Your task to perform on an android device: all mails in gmail Image 0: 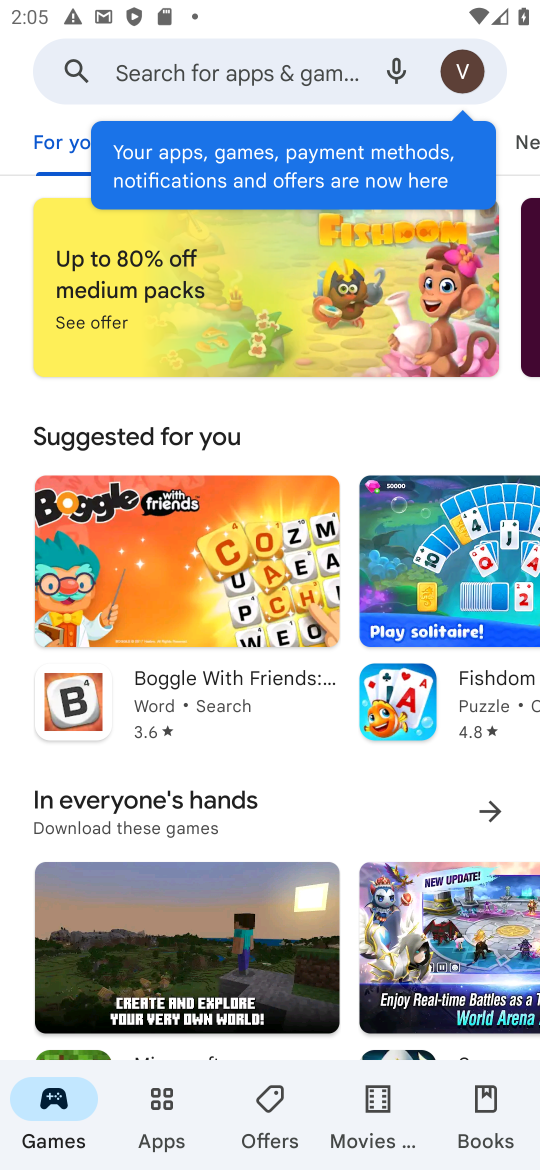
Step 0: press home button
Your task to perform on an android device: all mails in gmail Image 1: 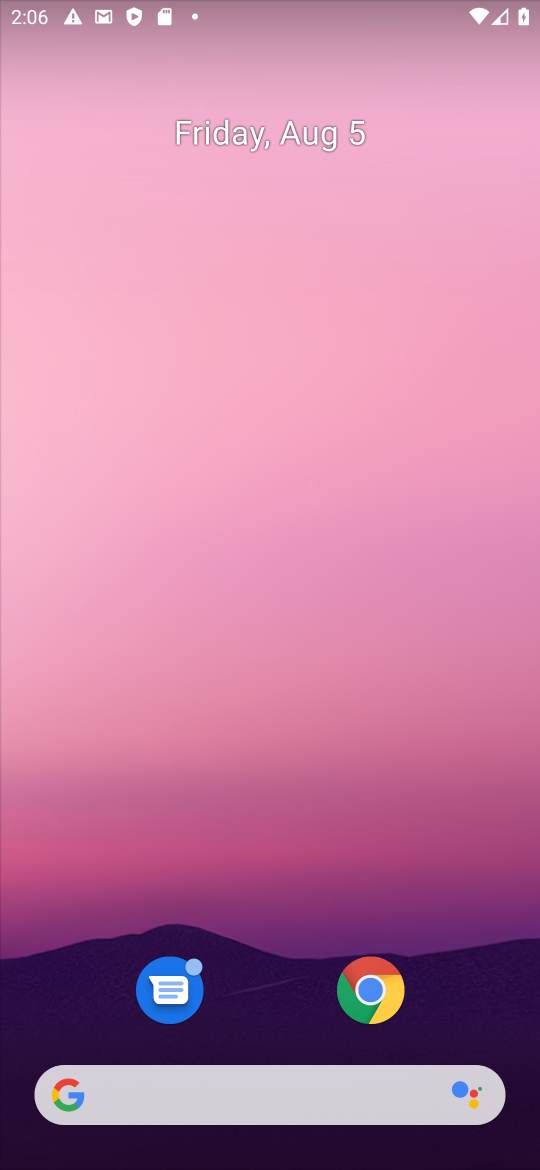
Step 1: drag from (279, 1094) to (180, 223)
Your task to perform on an android device: all mails in gmail Image 2: 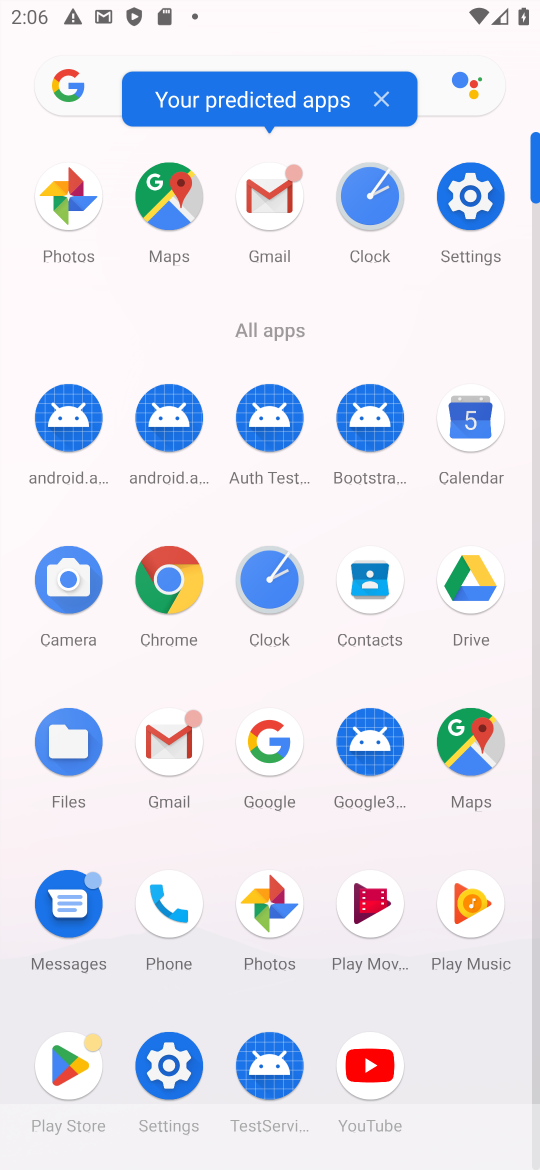
Step 2: click (168, 736)
Your task to perform on an android device: all mails in gmail Image 3: 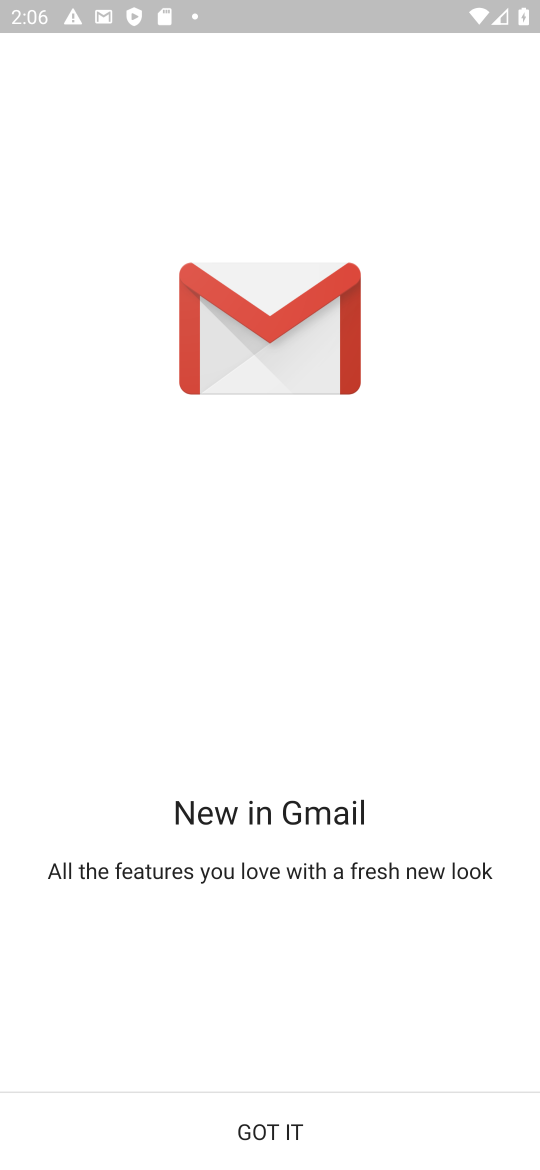
Step 3: click (280, 1132)
Your task to perform on an android device: all mails in gmail Image 4: 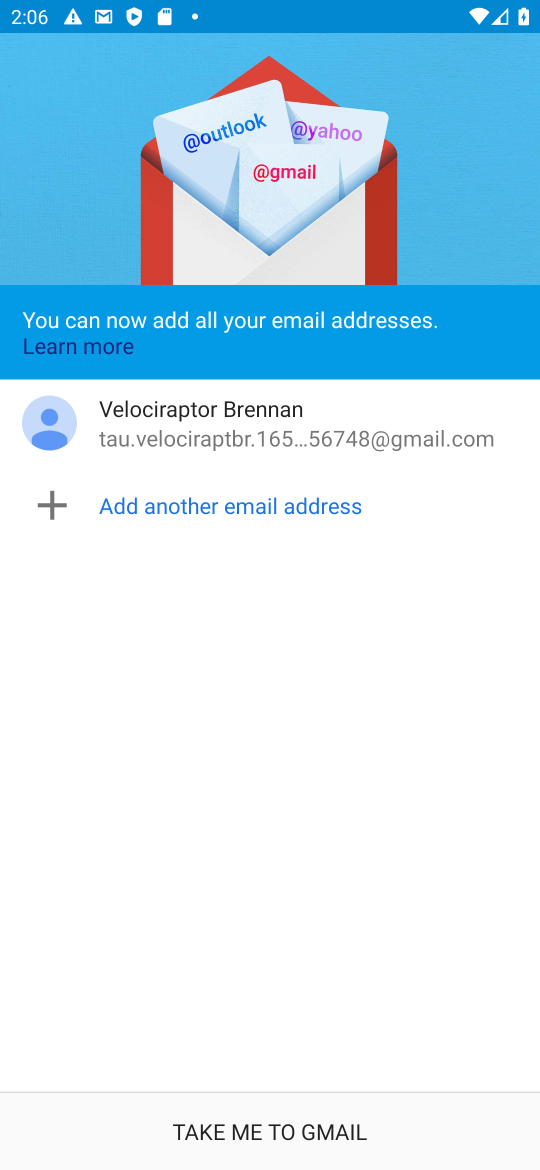
Step 4: click (257, 1124)
Your task to perform on an android device: all mails in gmail Image 5: 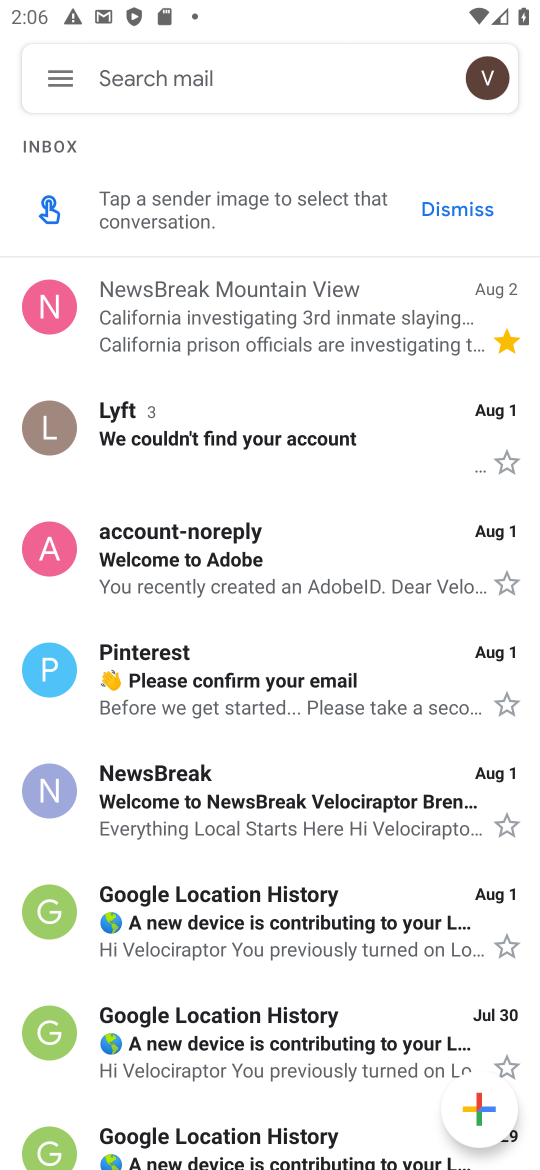
Step 5: click (61, 84)
Your task to perform on an android device: all mails in gmail Image 6: 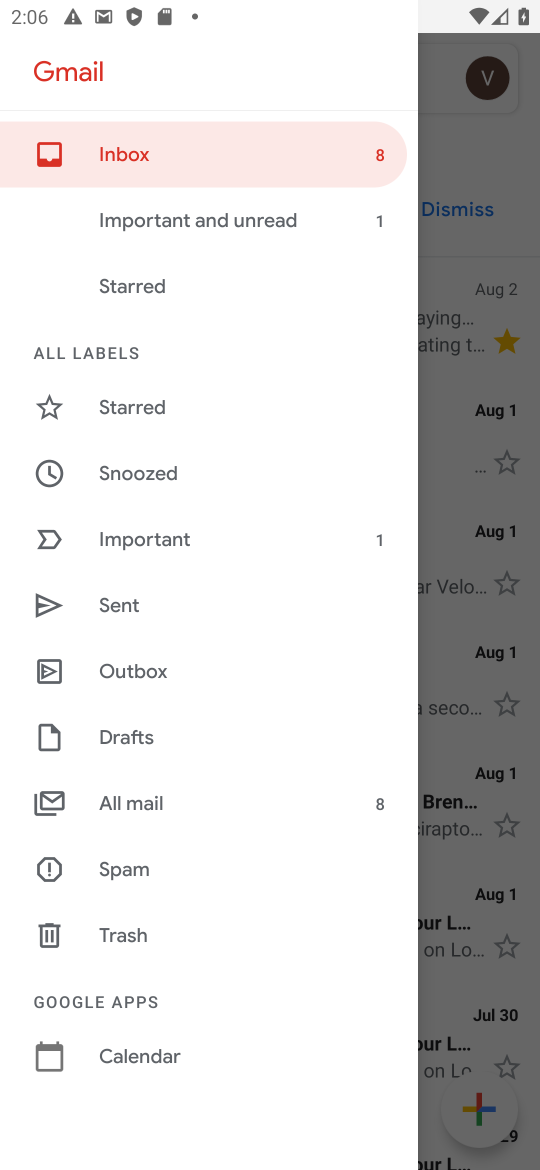
Step 6: click (149, 798)
Your task to perform on an android device: all mails in gmail Image 7: 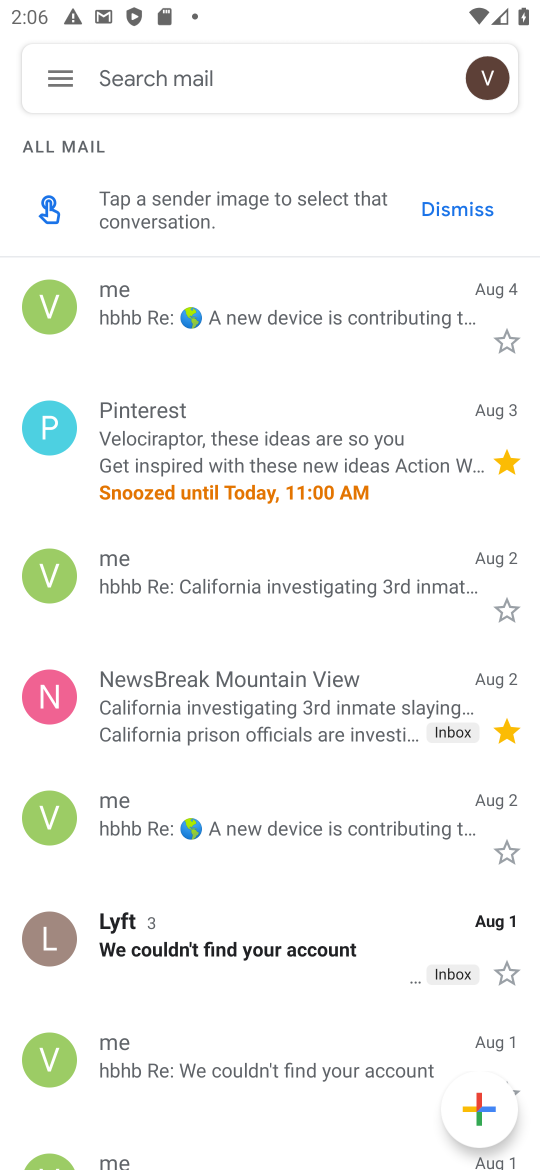
Step 7: task complete